Your task to perform on an android device: Go to Android settings Image 0: 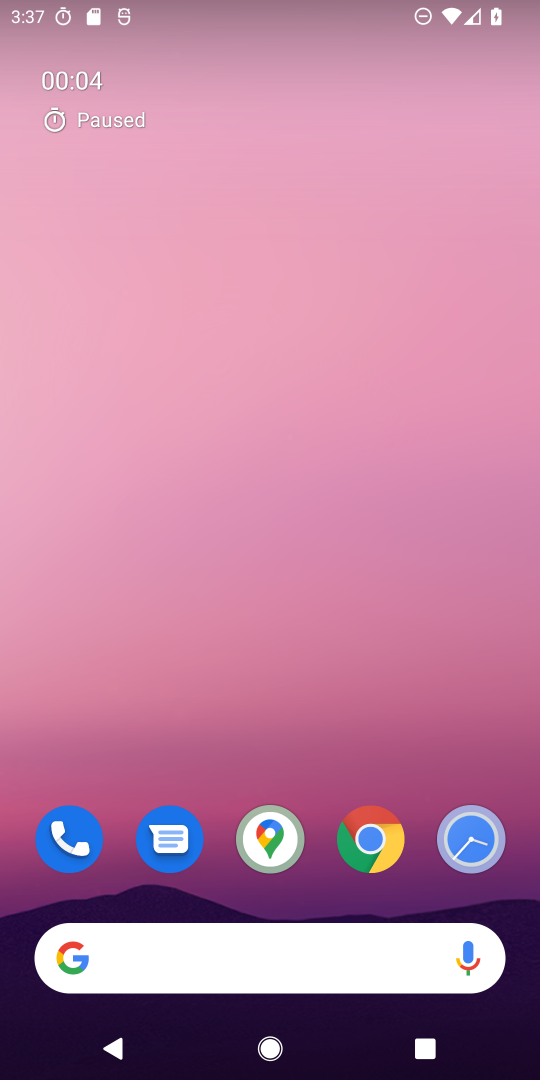
Step 0: drag from (51, 1045) to (327, 403)
Your task to perform on an android device: Go to Android settings Image 1: 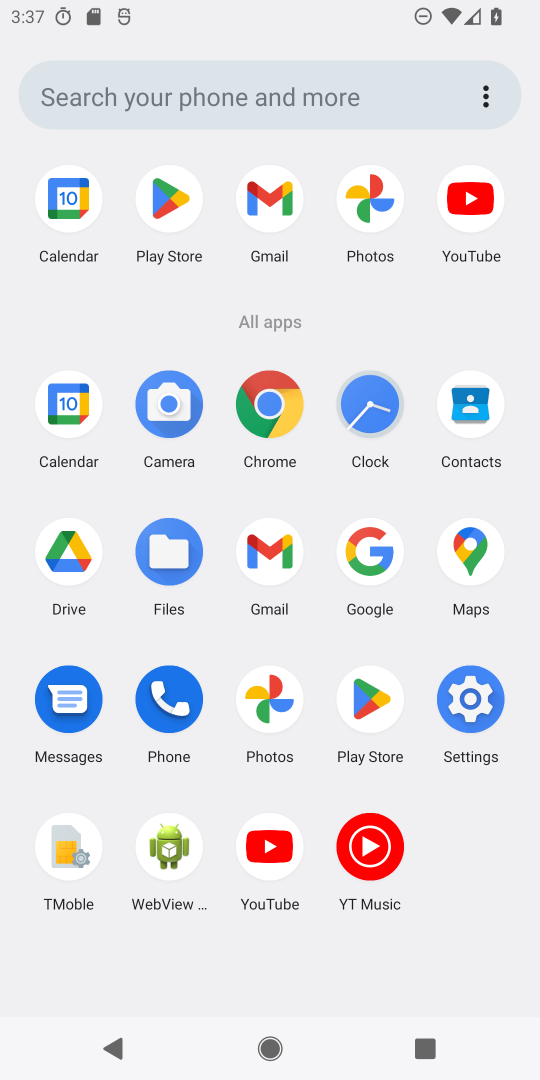
Step 1: click (472, 716)
Your task to perform on an android device: Go to Android settings Image 2: 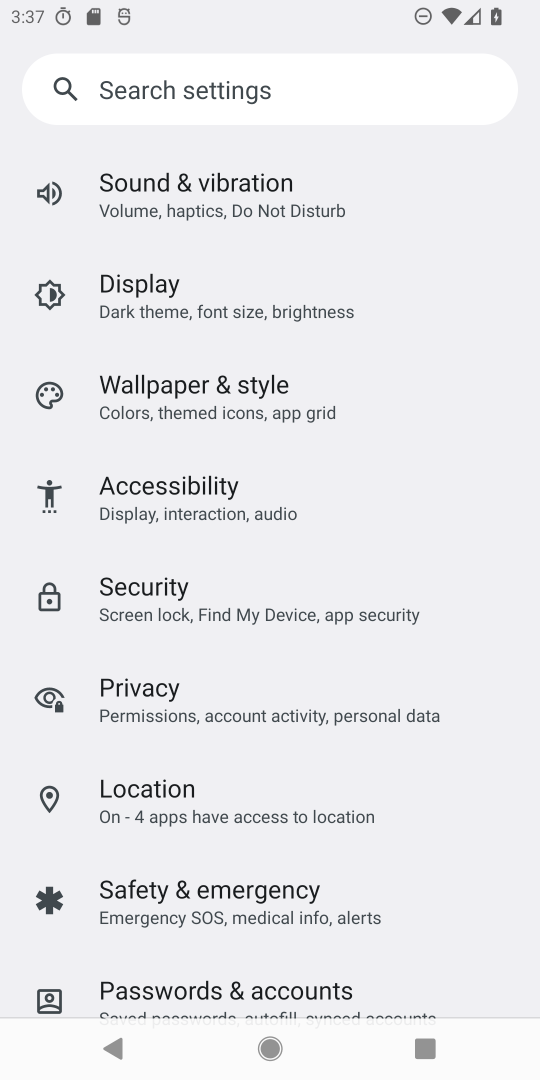
Step 2: drag from (447, 942) to (481, 412)
Your task to perform on an android device: Go to Android settings Image 3: 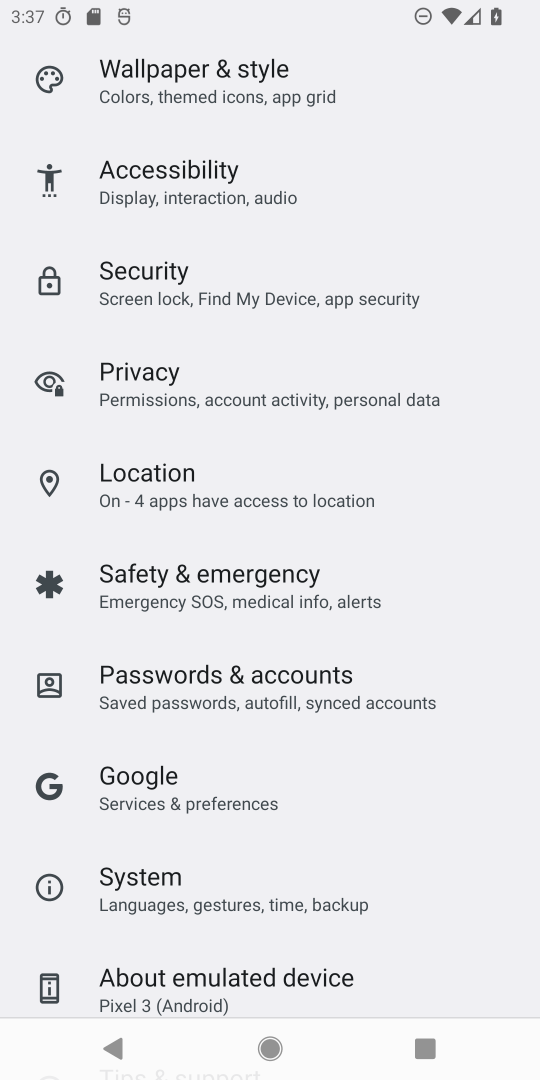
Step 3: click (234, 992)
Your task to perform on an android device: Go to Android settings Image 4: 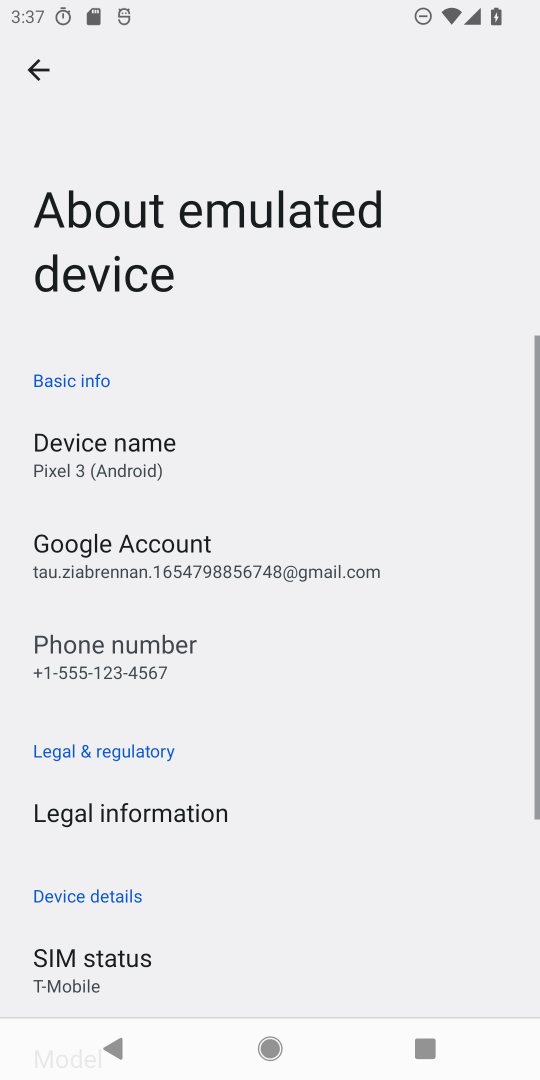
Step 4: drag from (417, 923) to (488, 58)
Your task to perform on an android device: Go to Android settings Image 5: 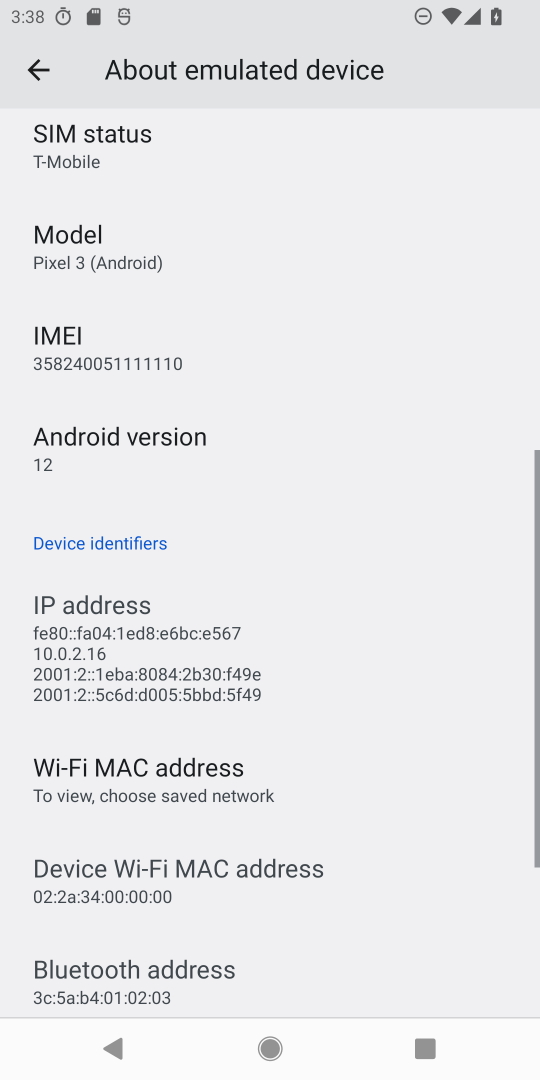
Step 5: click (143, 470)
Your task to perform on an android device: Go to Android settings Image 6: 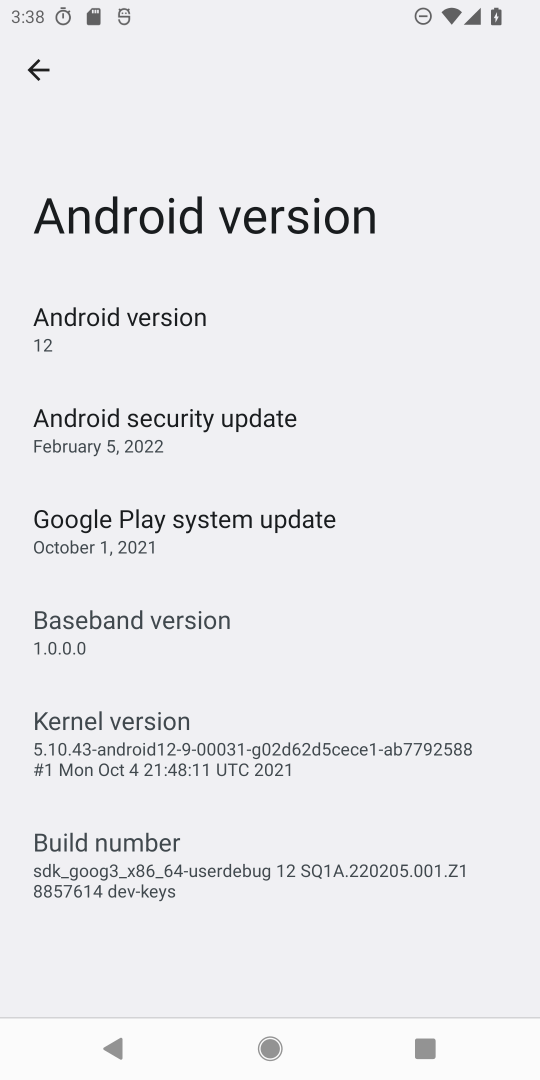
Step 6: task complete